Your task to perform on an android device: toggle improve location accuracy Image 0: 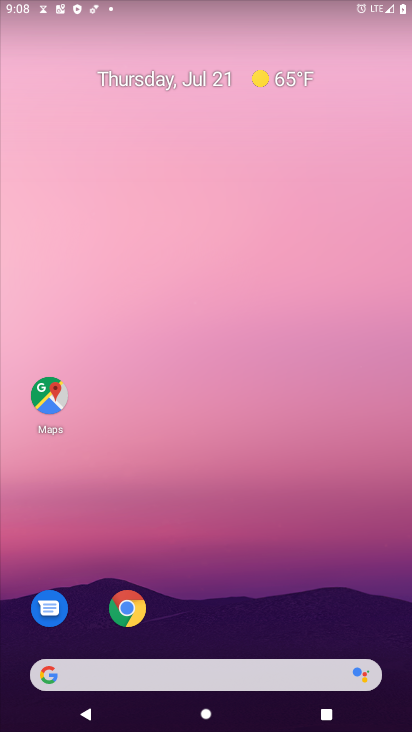
Step 0: drag from (211, 678) to (258, 382)
Your task to perform on an android device: toggle improve location accuracy Image 1: 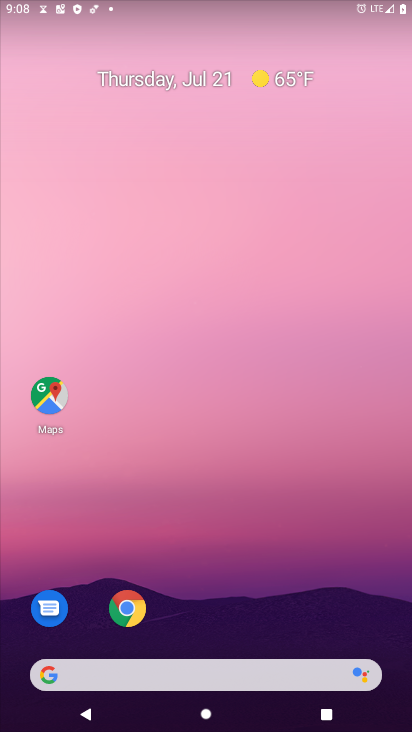
Step 1: drag from (181, 678) to (239, 253)
Your task to perform on an android device: toggle improve location accuracy Image 2: 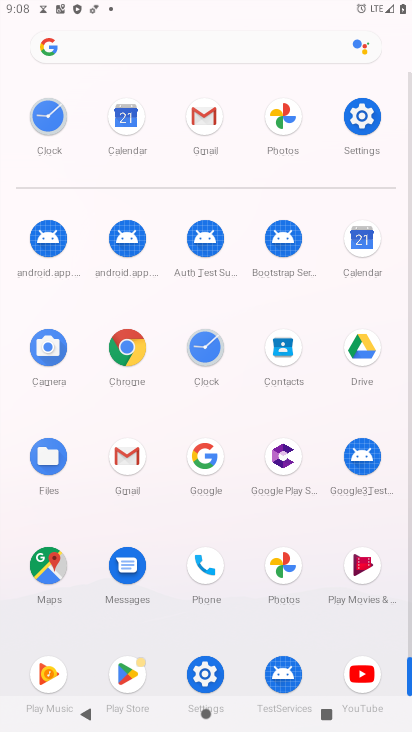
Step 2: click (362, 113)
Your task to perform on an android device: toggle improve location accuracy Image 3: 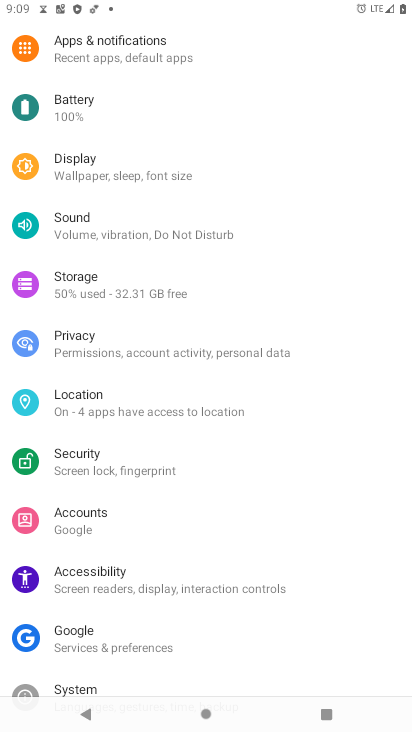
Step 3: click (113, 407)
Your task to perform on an android device: toggle improve location accuracy Image 4: 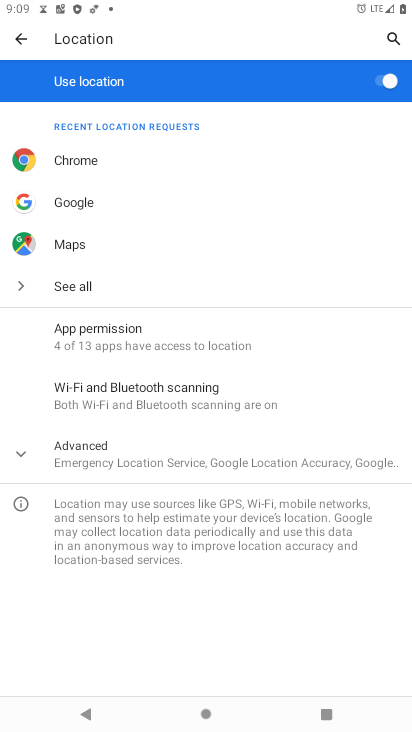
Step 4: click (108, 459)
Your task to perform on an android device: toggle improve location accuracy Image 5: 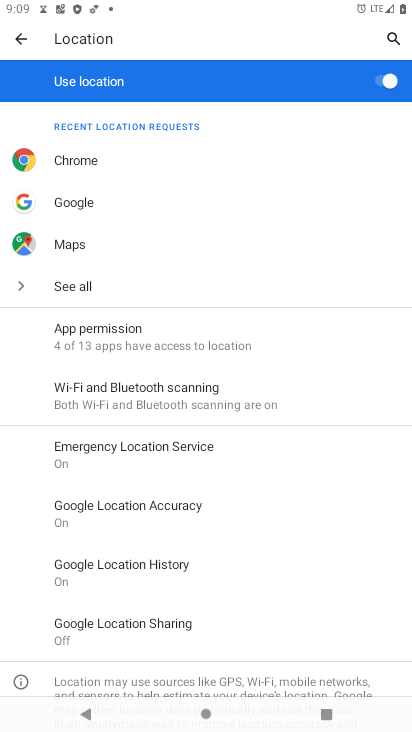
Step 5: click (117, 498)
Your task to perform on an android device: toggle improve location accuracy Image 6: 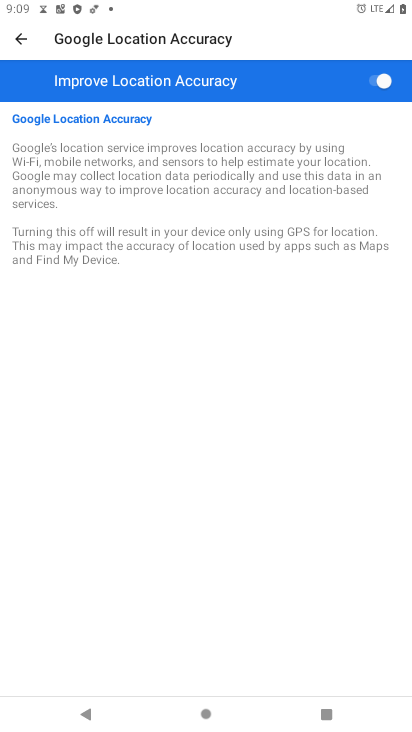
Step 6: click (374, 83)
Your task to perform on an android device: toggle improve location accuracy Image 7: 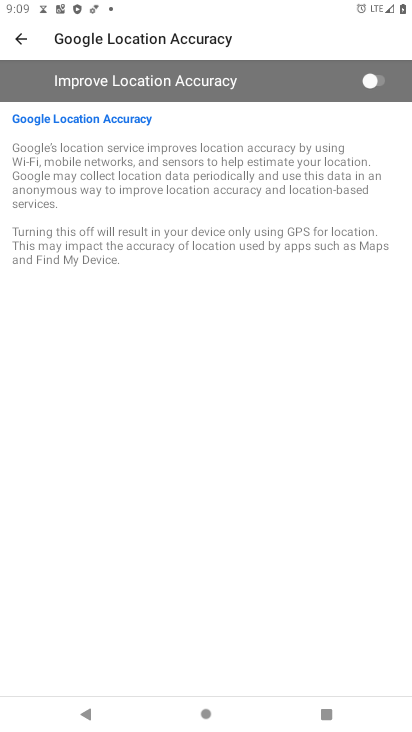
Step 7: task complete